Your task to perform on an android device: Add macbook air to the cart on bestbuy.com Image 0: 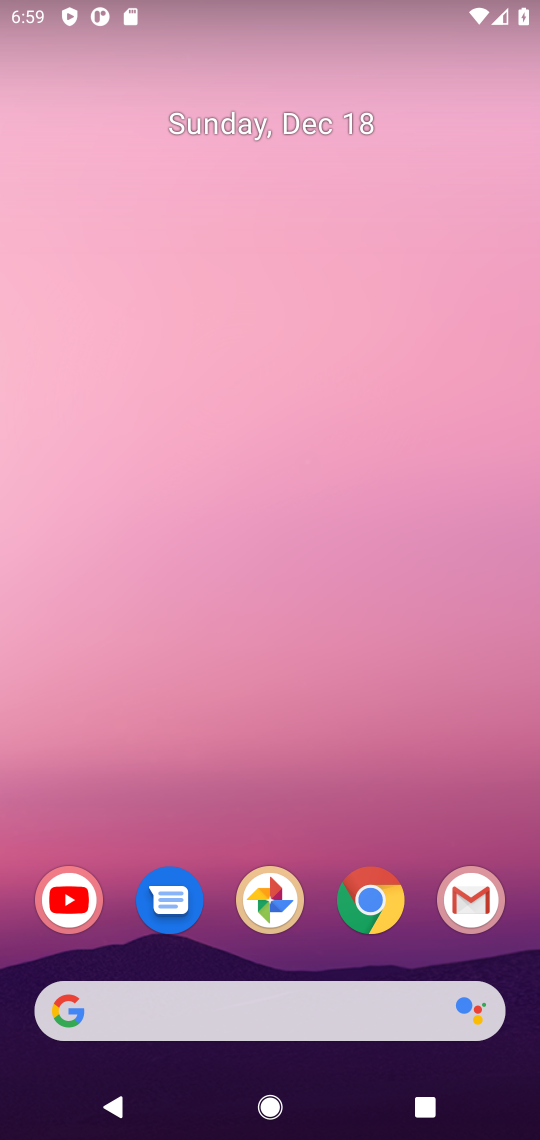
Step 0: click (375, 917)
Your task to perform on an android device: Add macbook air to the cart on bestbuy.com Image 1: 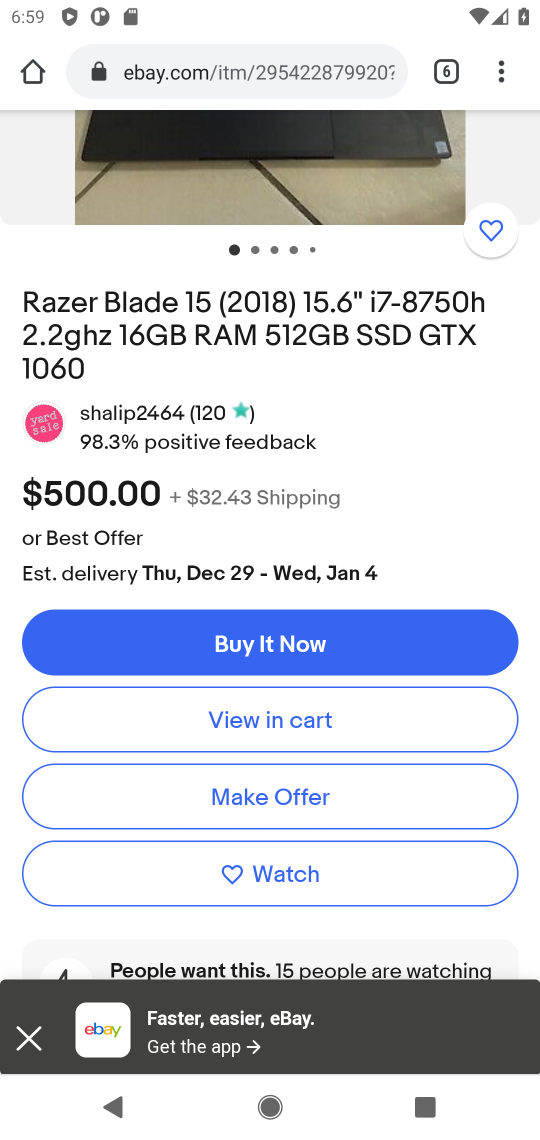
Step 1: drag from (497, 147) to (416, 768)
Your task to perform on an android device: Add macbook air to the cart on bestbuy.com Image 2: 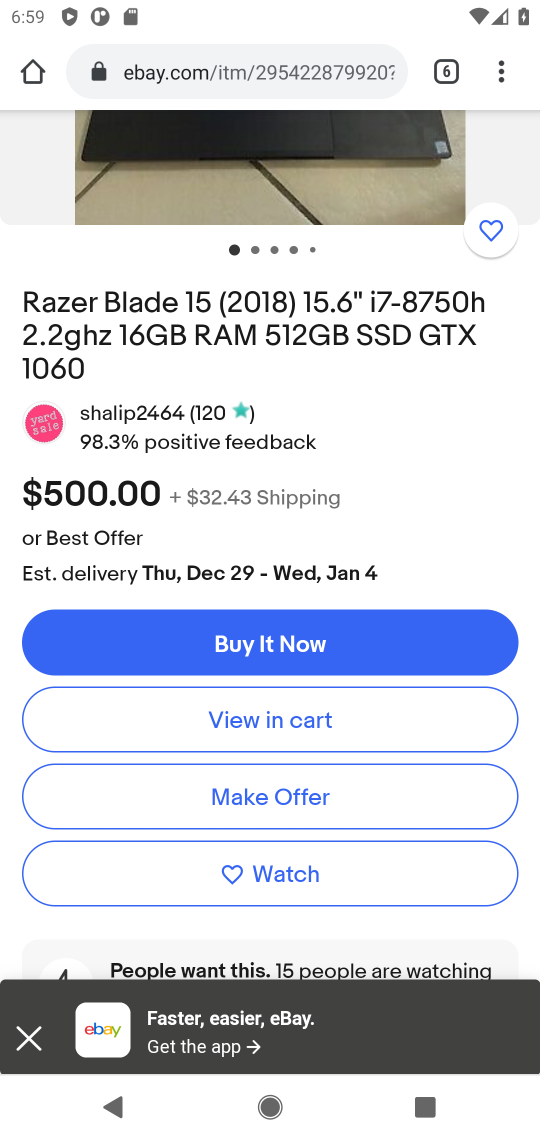
Step 2: drag from (323, 260) to (283, 771)
Your task to perform on an android device: Add macbook air to the cart on bestbuy.com Image 3: 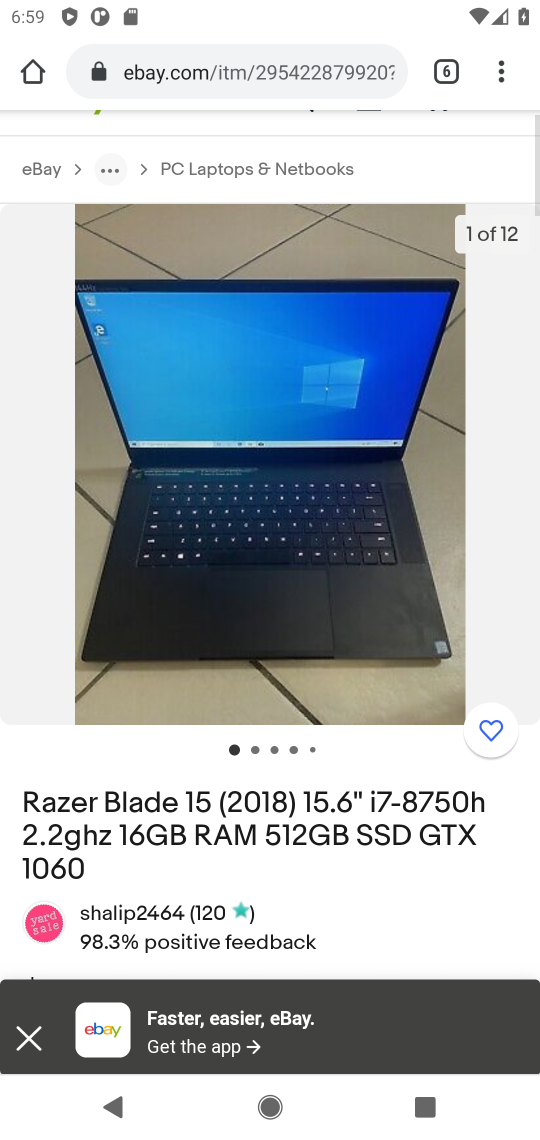
Step 3: drag from (392, 225) to (412, 858)
Your task to perform on an android device: Add macbook air to the cart on bestbuy.com Image 4: 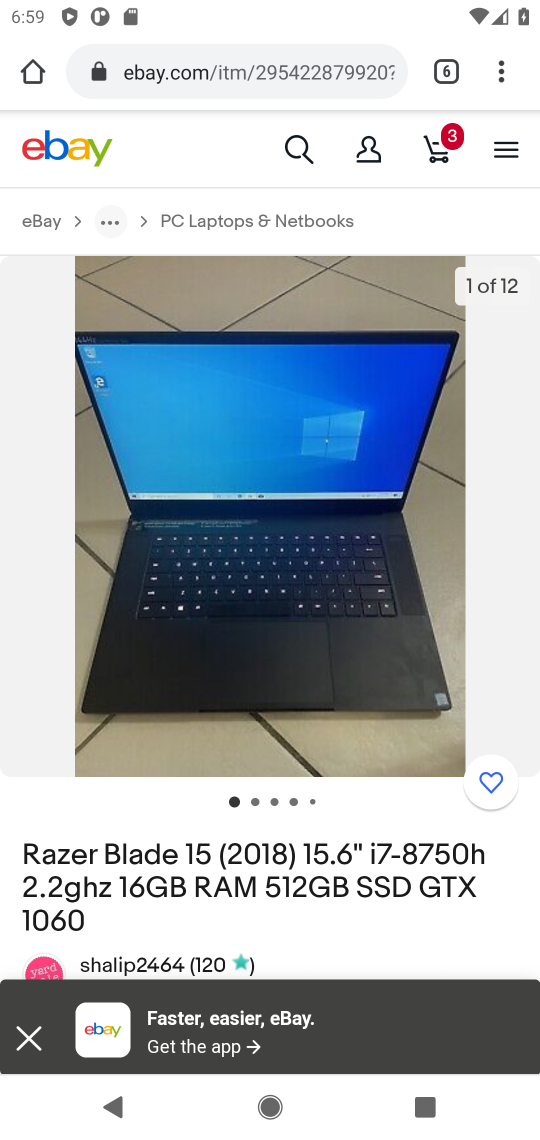
Step 4: click (297, 145)
Your task to perform on an android device: Add macbook air to the cart on bestbuy.com Image 5: 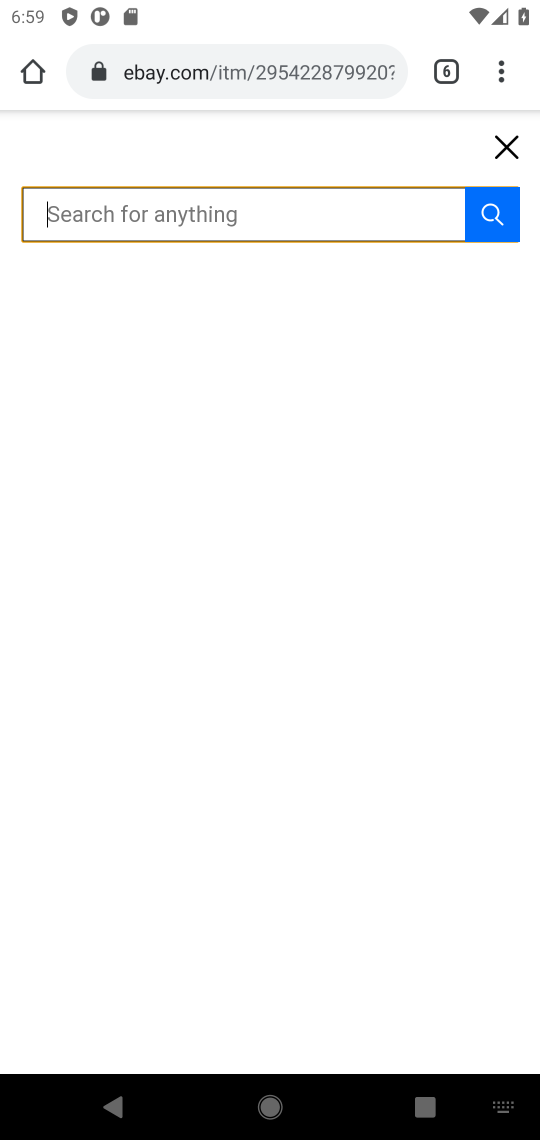
Step 5: click (438, 76)
Your task to perform on an android device: Add macbook air to the cart on bestbuy.com Image 6: 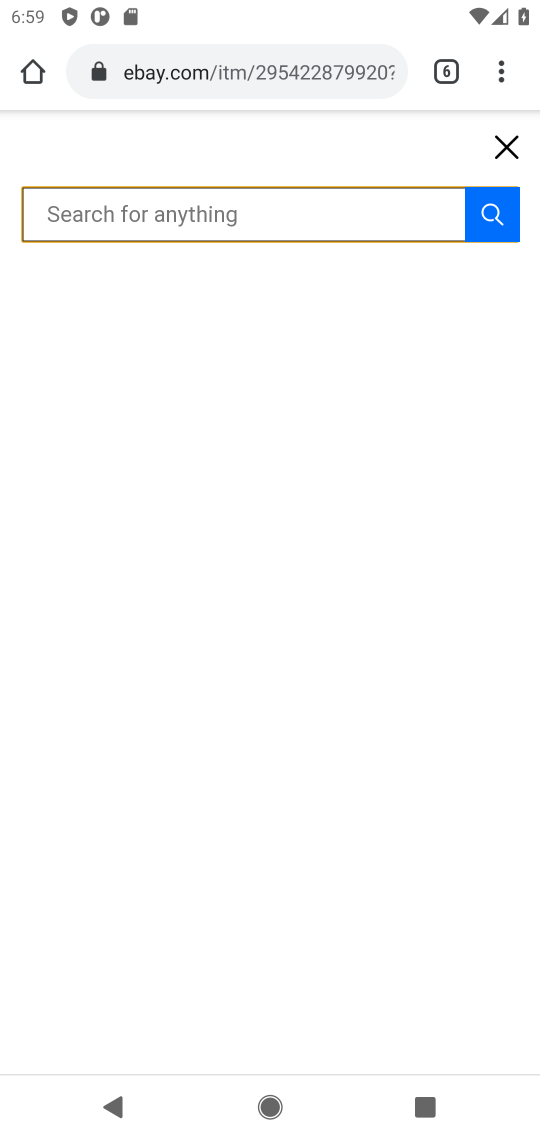
Step 6: click (438, 76)
Your task to perform on an android device: Add macbook air to the cart on bestbuy.com Image 7: 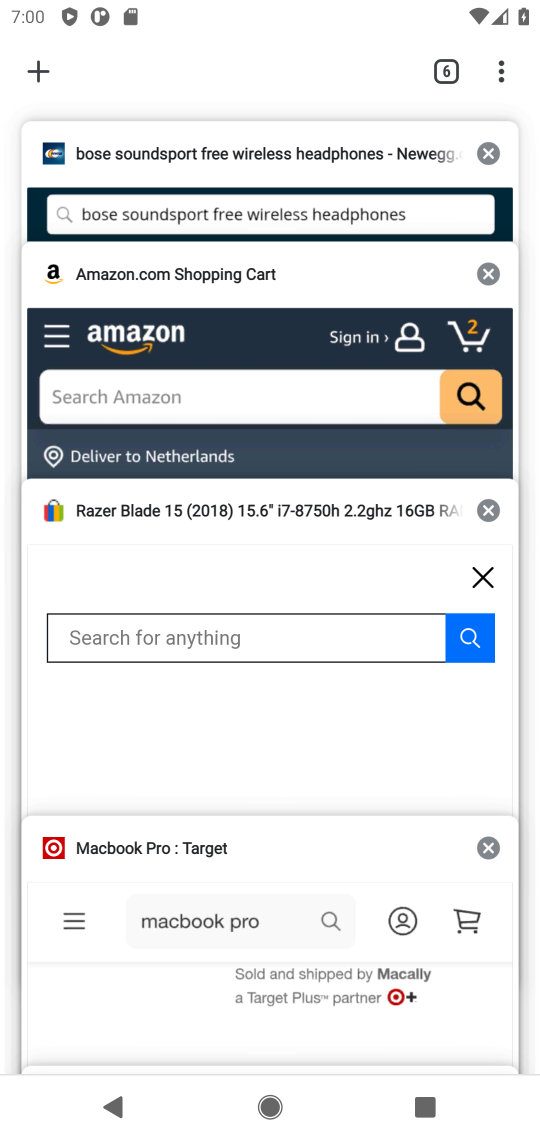
Step 7: drag from (216, 987) to (382, 386)
Your task to perform on an android device: Add macbook air to the cart on bestbuy.com Image 8: 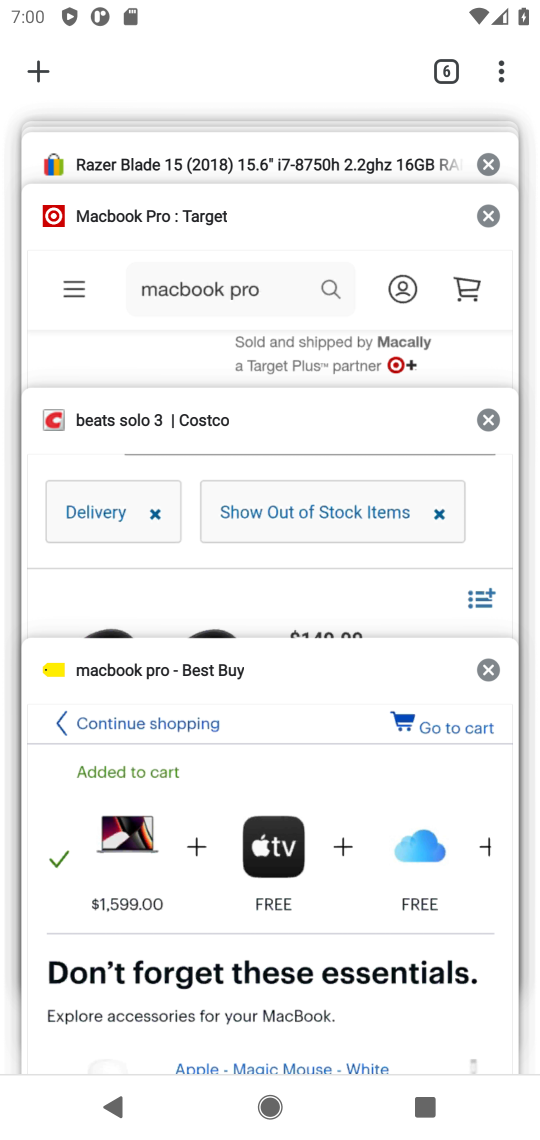
Step 8: click (318, 760)
Your task to perform on an android device: Add macbook air to the cart on bestbuy.com Image 9: 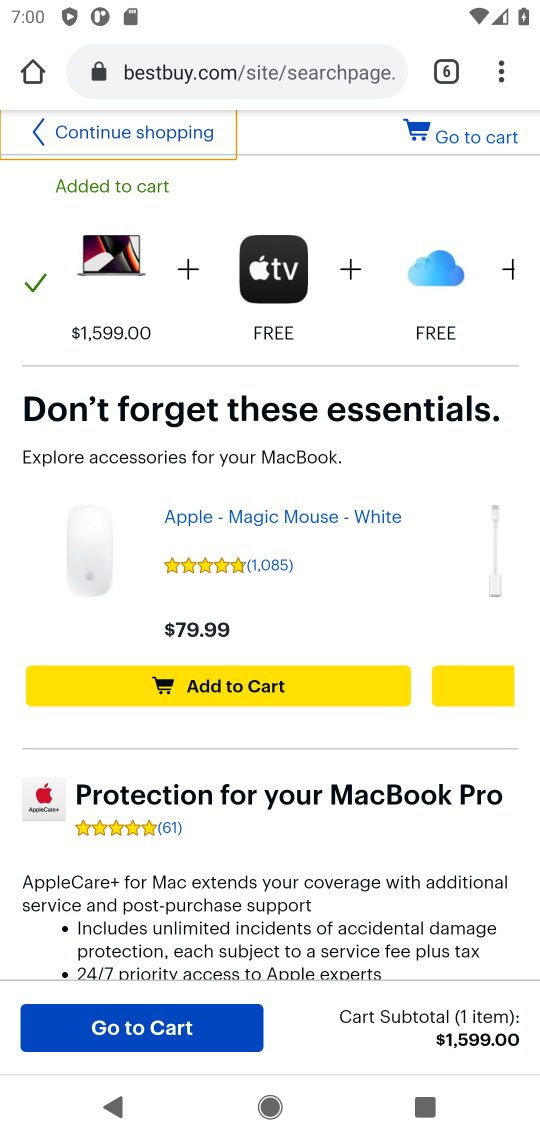
Step 9: click (165, 127)
Your task to perform on an android device: Add macbook air to the cart on bestbuy.com Image 10: 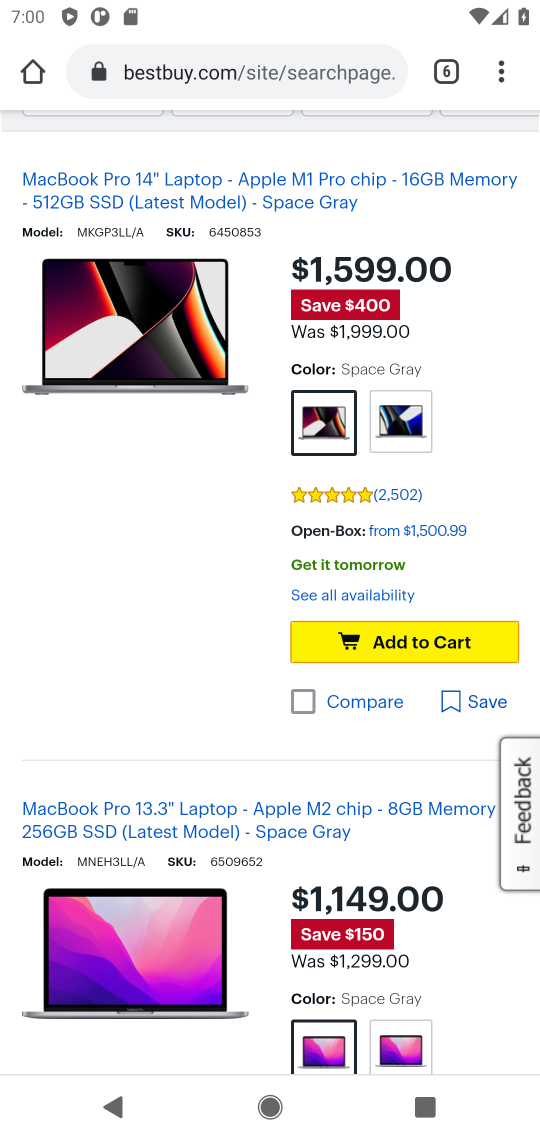
Step 10: drag from (431, 146) to (412, 525)
Your task to perform on an android device: Add macbook air to the cart on bestbuy.com Image 11: 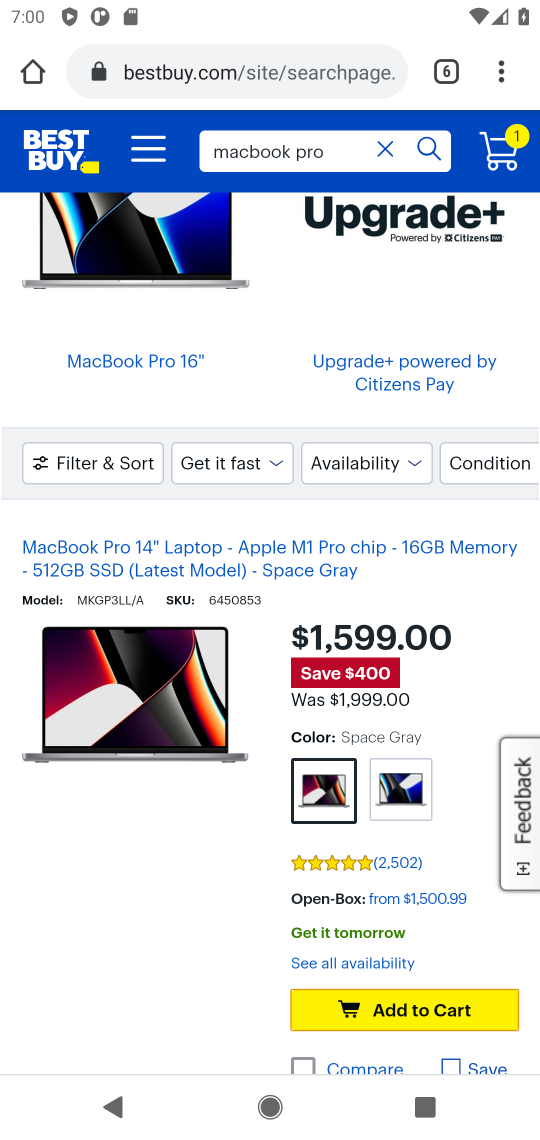
Step 11: click (380, 146)
Your task to perform on an android device: Add macbook air to the cart on bestbuy.com Image 12: 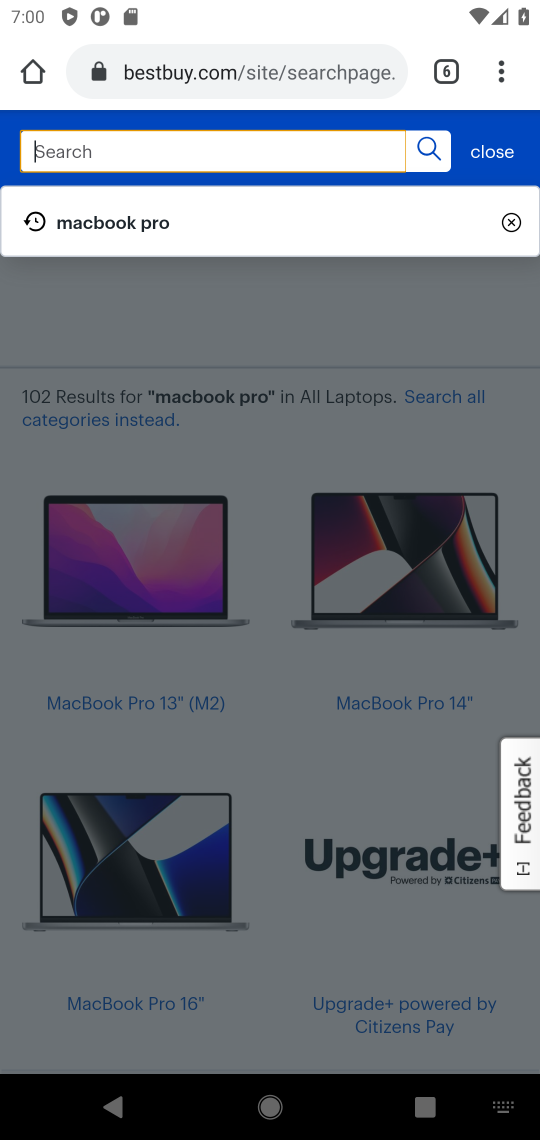
Step 12: type "macbook air"
Your task to perform on an android device: Add macbook air to the cart on bestbuy.com Image 13: 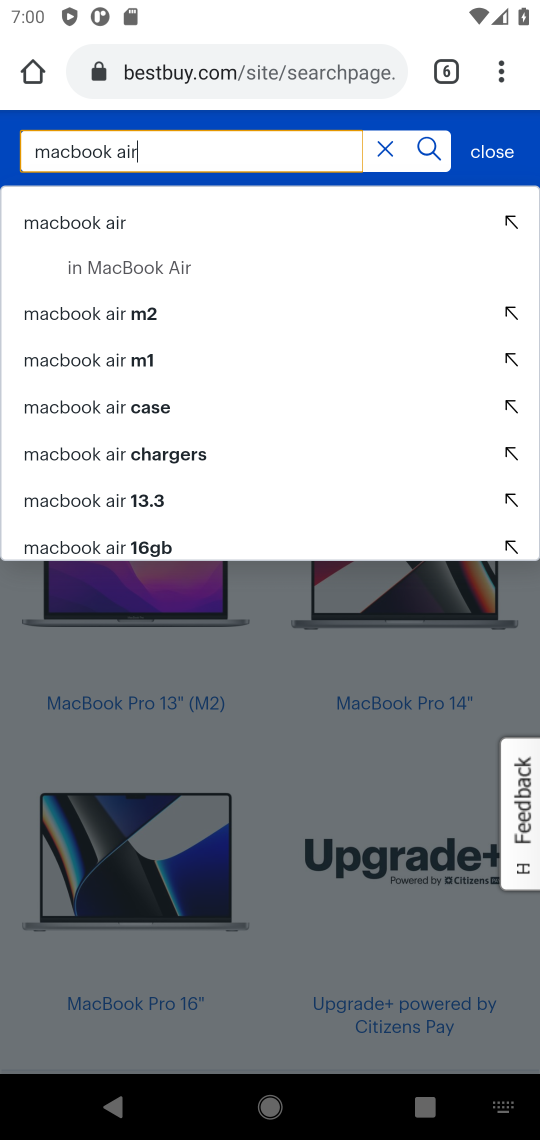
Step 13: click (104, 218)
Your task to perform on an android device: Add macbook air to the cart on bestbuy.com Image 14: 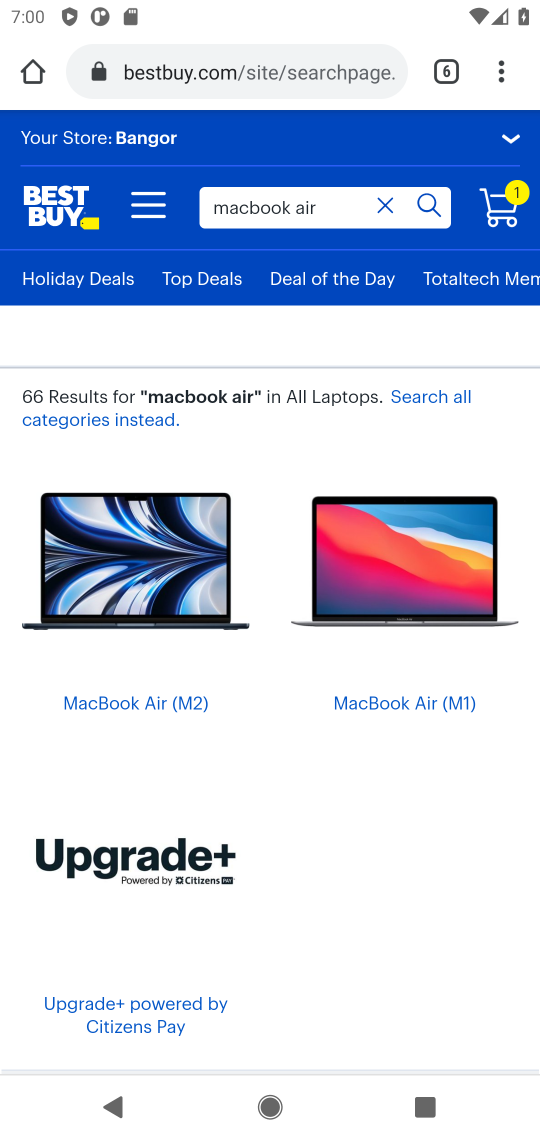
Step 14: drag from (304, 957) to (462, 447)
Your task to perform on an android device: Add macbook air to the cart on bestbuy.com Image 15: 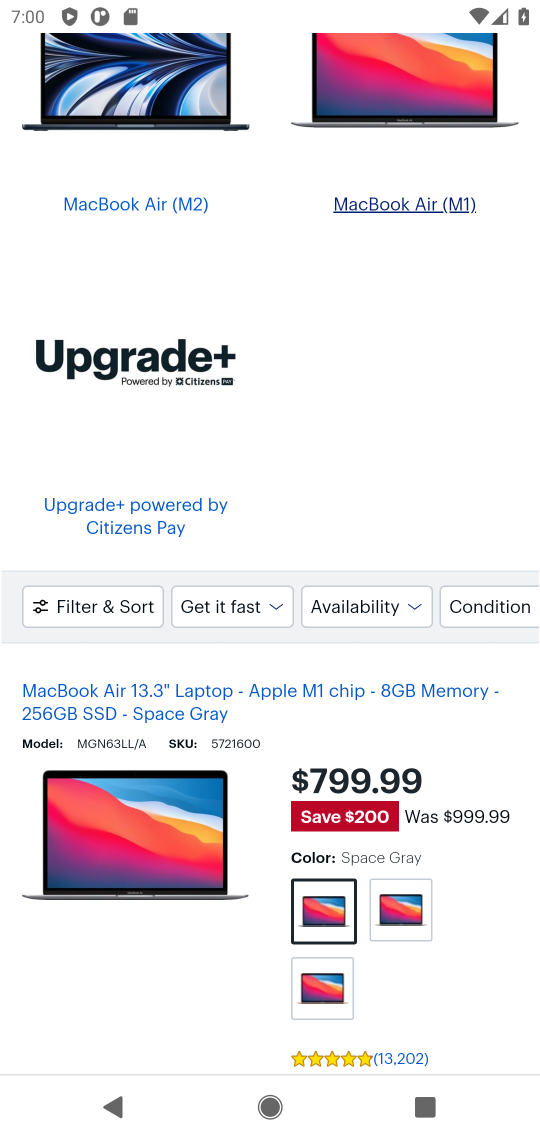
Step 15: drag from (466, 900) to (523, 564)
Your task to perform on an android device: Add macbook air to the cart on bestbuy.com Image 16: 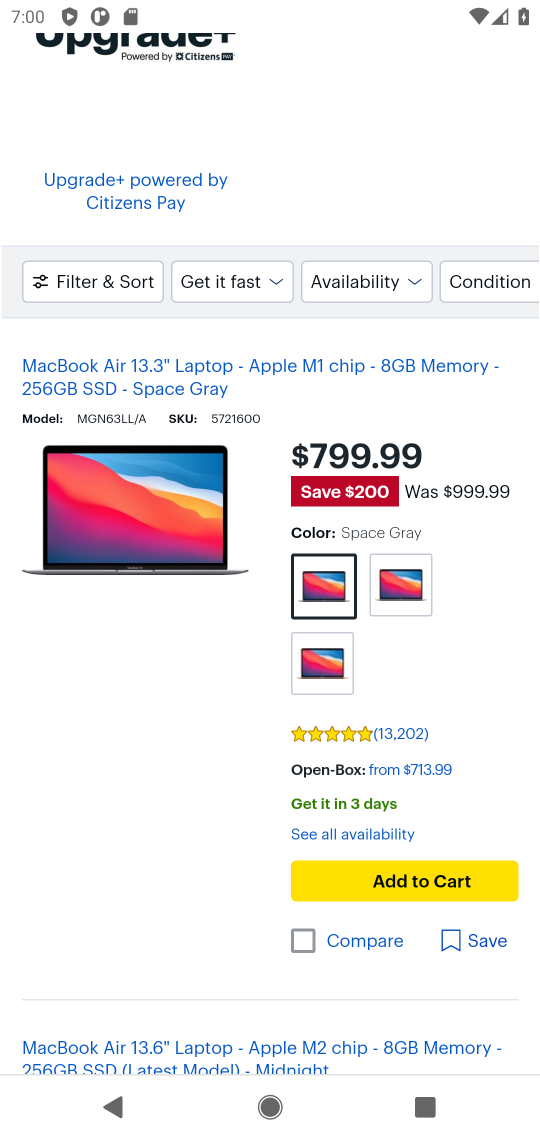
Step 16: click (380, 879)
Your task to perform on an android device: Add macbook air to the cart on bestbuy.com Image 17: 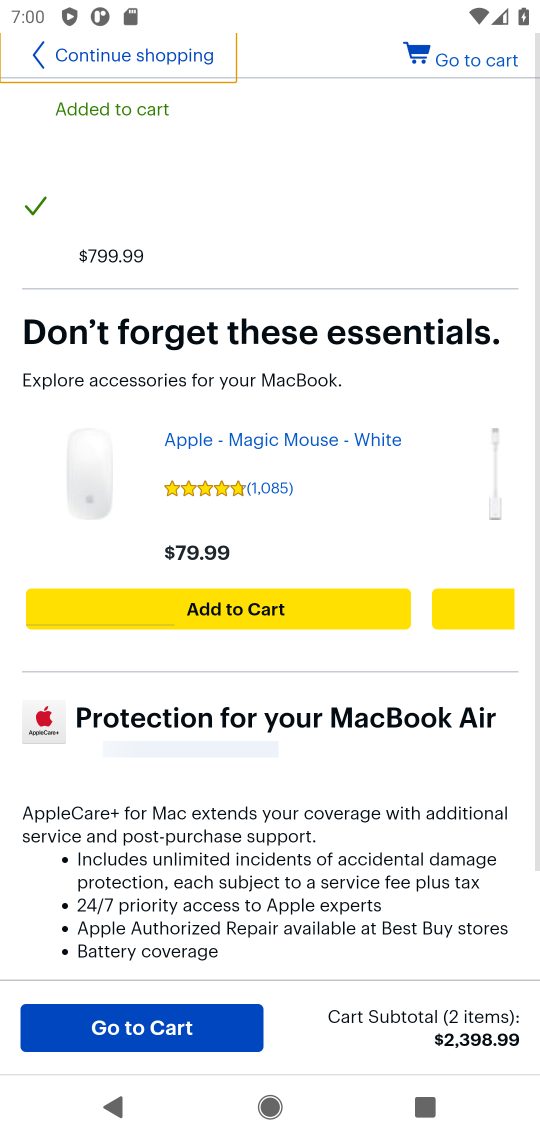
Step 17: task complete